Your task to perform on an android device: search for starred emails in the gmail app Image 0: 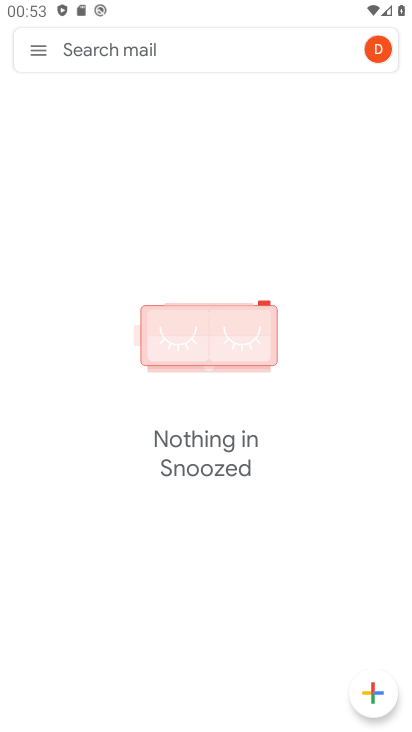
Step 0: press back button
Your task to perform on an android device: search for starred emails in the gmail app Image 1: 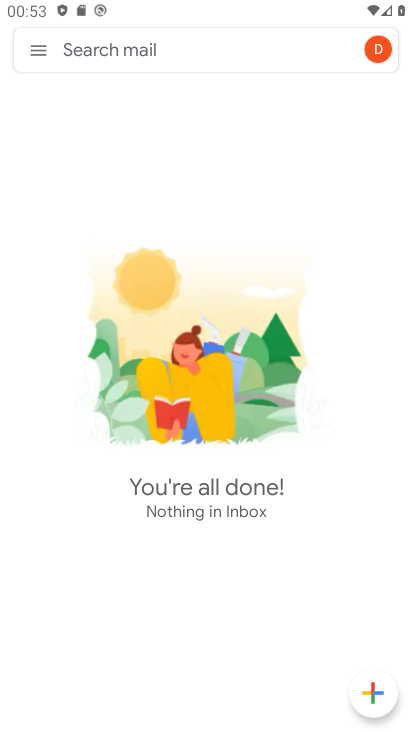
Step 1: press home button
Your task to perform on an android device: search for starred emails in the gmail app Image 2: 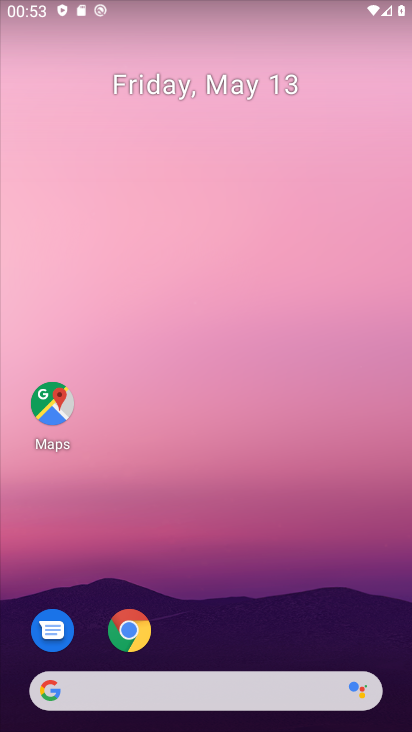
Step 2: drag from (239, 718) to (159, 239)
Your task to perform on an android device: search for starred emails in the gmail app Image 3: 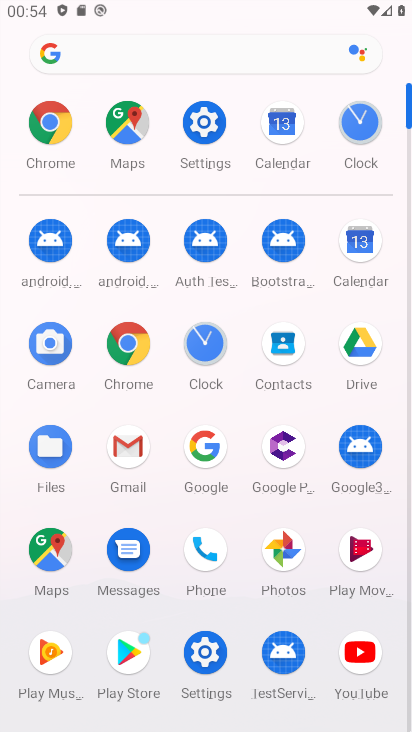
Step 3: click (147, 435)
Your task to perform on an android device: search for starred emails in the gmail app Image 4: 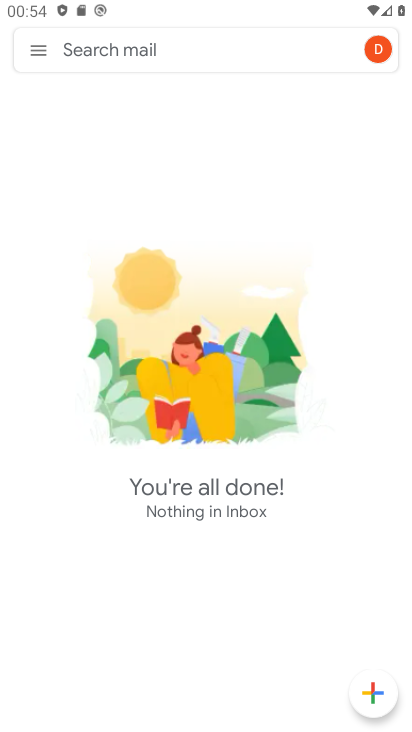
Step 4: click (39, 48)
Your task to perform on an android device: search for starred emails in the gmail app Image 5: 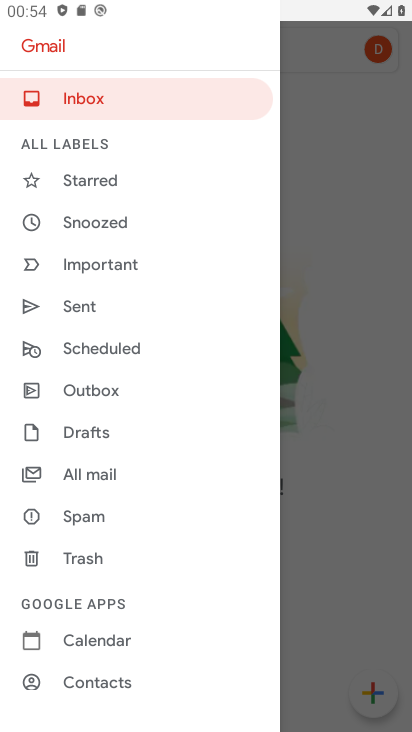
Step 5: click (63, 185)
Your task to perform on an android device: search for starred emails in the gmail app Image 6: 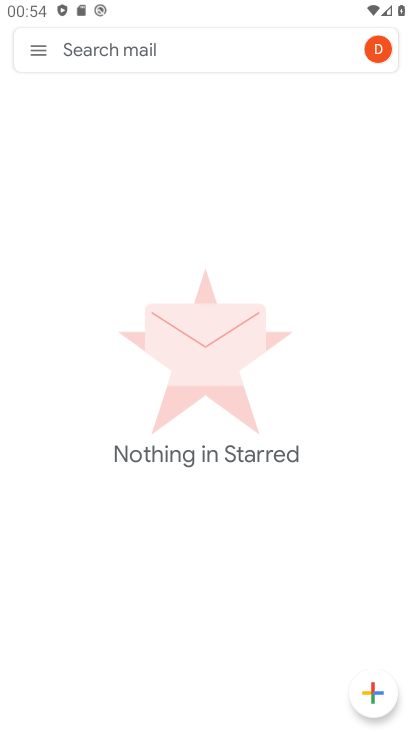
Step 6: task complete